Your task to perform on an android device: set default search engine in the chrome app Image 0: 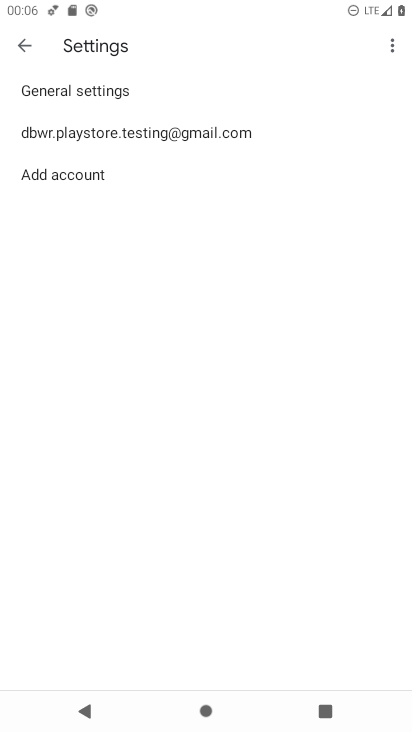
Step 0: press home button
Your task to perform on an android device: set default search engine in the chrome app Image 1: 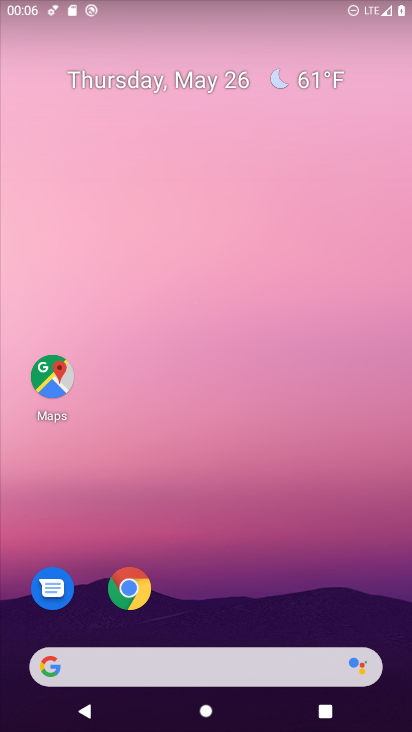
Step 1: click (127, 591)
Your task to perform on an android device: set default search engine in the chrome app Image 2: 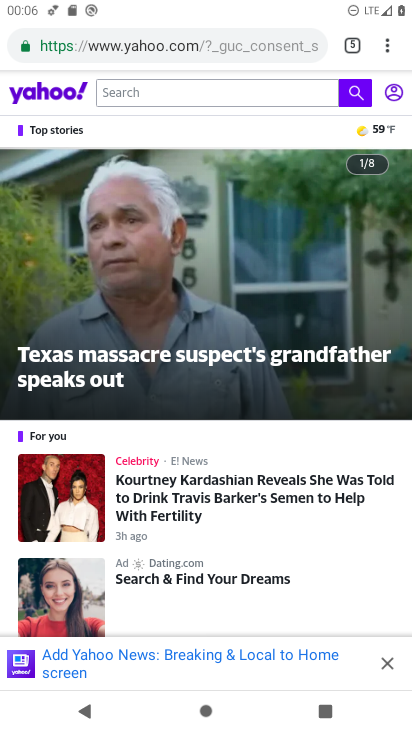
Step 2: click (387, 52)
Your task to perform on an android device: set default search engine in the chrome app Image 3: 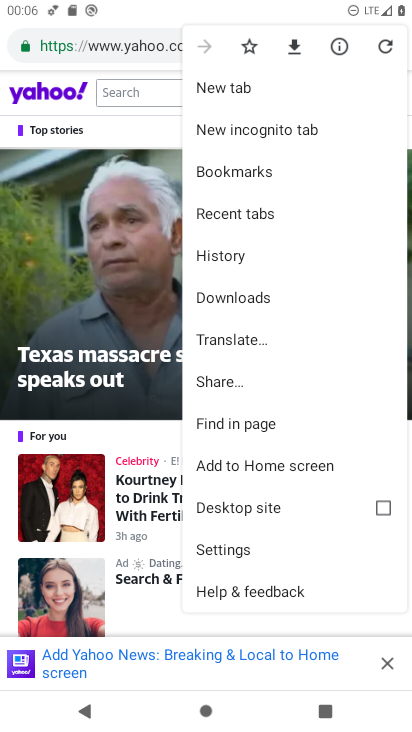
Step 3: click (236, 547)
Your task to perform on an android device: set default search engine in the chrome app Image 4: 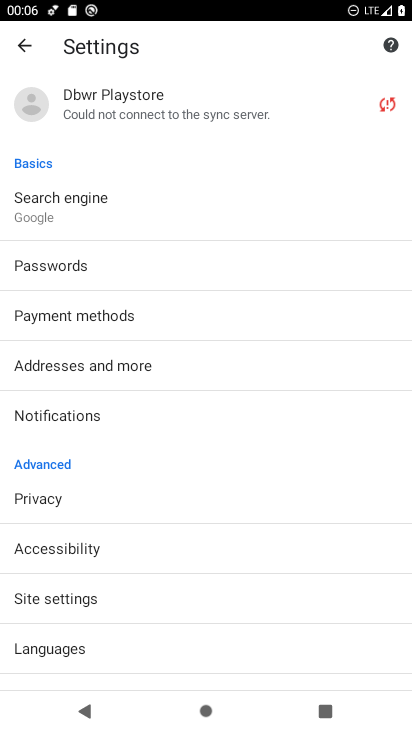
Step 4: click (53, 189)
Your task to perform on an android device: set default search engine in the chrome app Image 5: 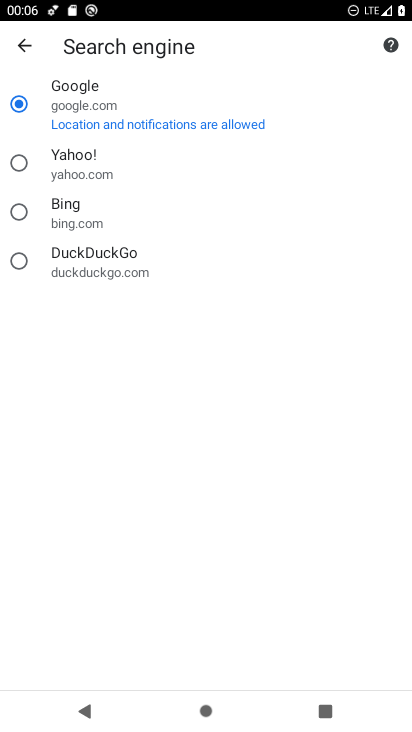
Step 5: task complete